Your task to perform on an android device: Open settings on Google Maps Image 0: 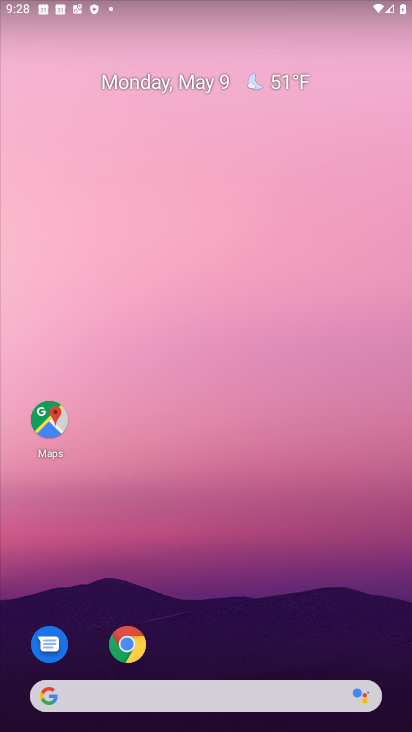
Step 0: drag from (201, 661) to (137, 21)
Your task to perform on an android device: Open settings on Google Maps Image 1: 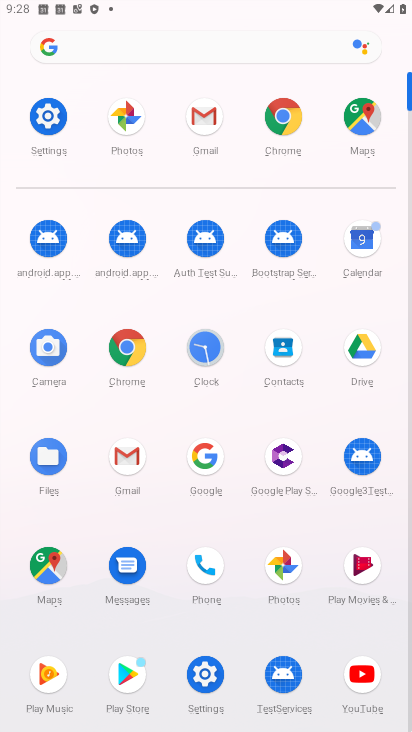
Step 1: click (51, 579)
Your task to perform on an android device: Open settings on Google Maps Image 2: 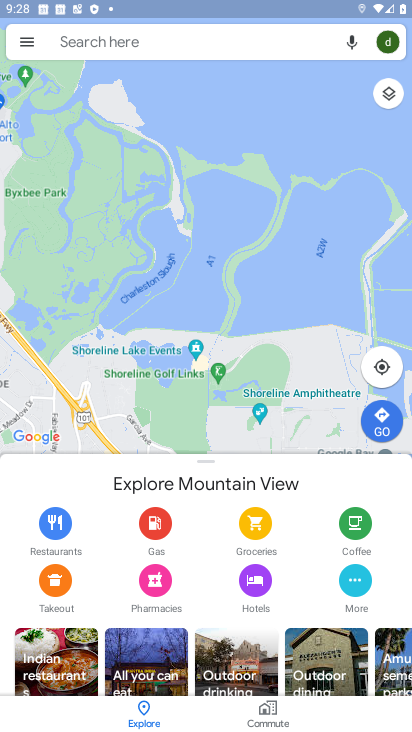
Step 2: click (18, 44)
Your task to perform on an android device: Open settings on Google Maps Image 3: 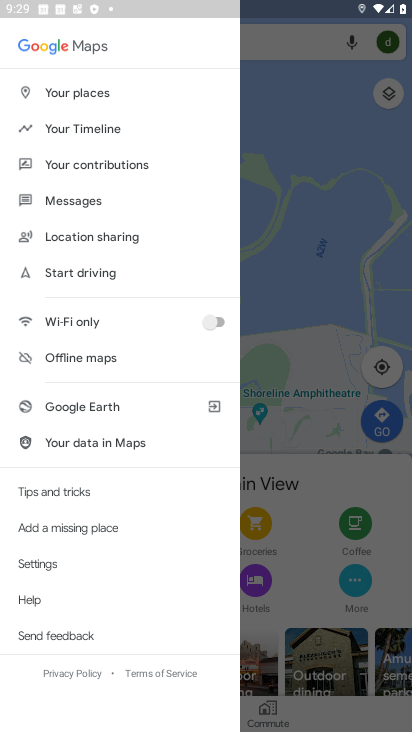
Step 3: click (55, 567)
Your task to perform on an android device: Open settings on Google Maps Image 4: 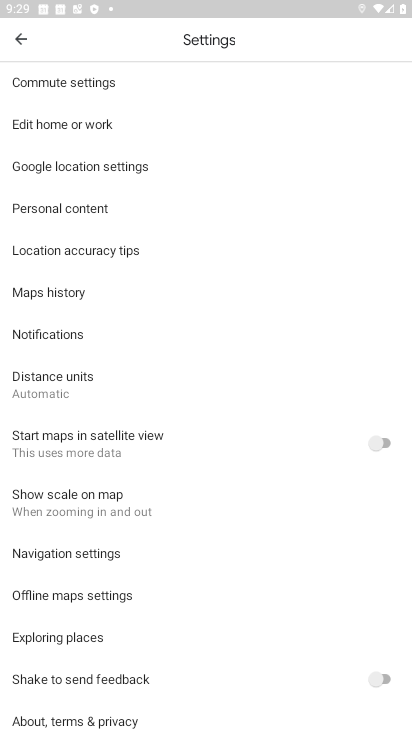
Step 4: task complete